Your task to perform on an android device: What's the weather today? Image 0: 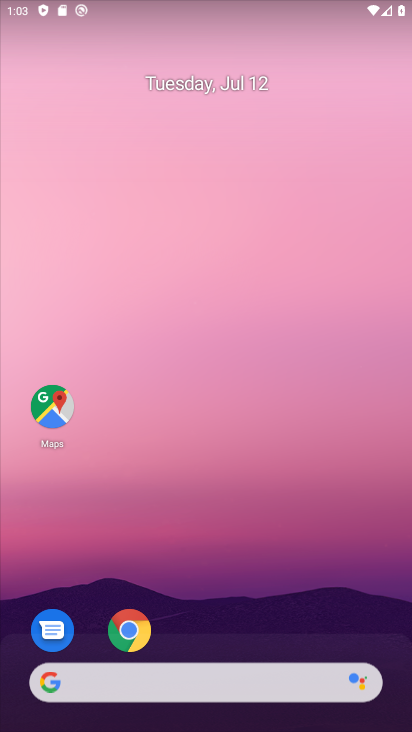
Step 0: drag from (181, 643) to (184, 78)
Your task to perform on an android device: What's the weather today? Image 1: 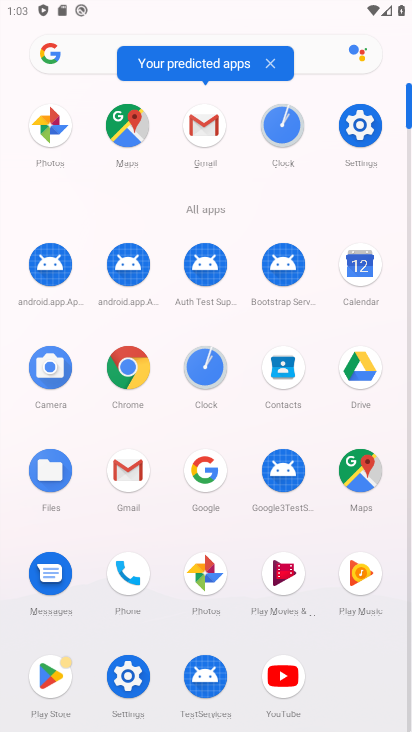
Step 1: click (200, 458)
Your task to perform on an android device: What's the weather today? Image 2: 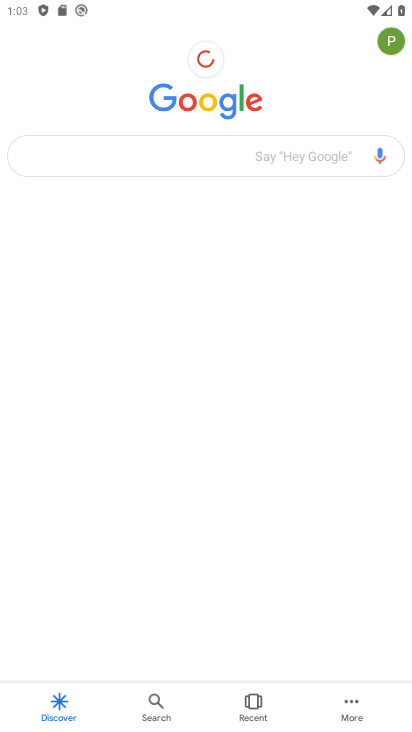
Step 2: click (204, 142)
Your task to perform on an android device: What's the weather today? Image 3: 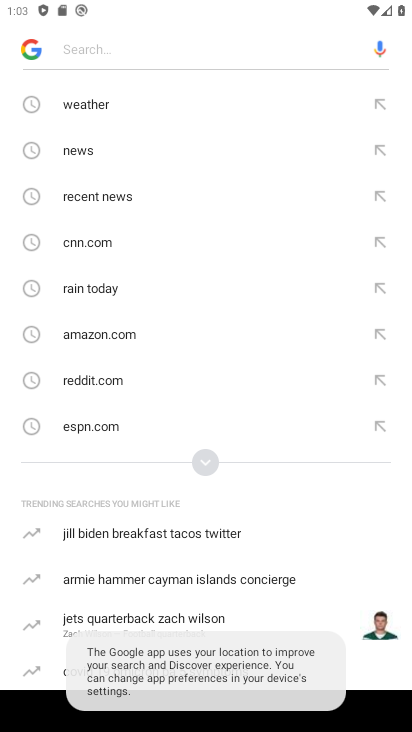
Step 3: click (147, 114)
Your task to perform on an android device: What's the weather today? Image 4: 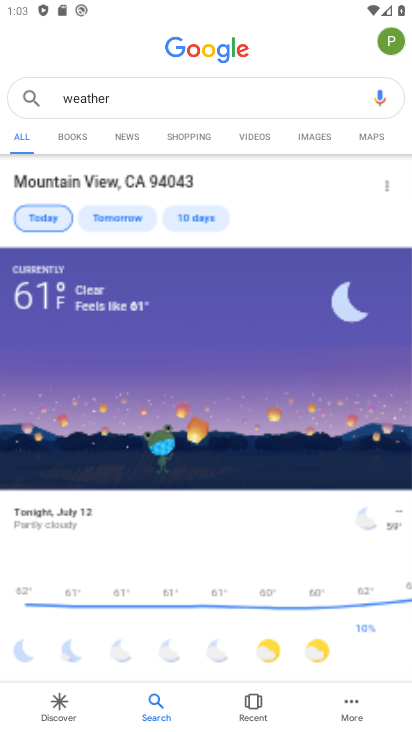
Step 4: task complete